Your task to perform on an android device: check data usage Image 0: 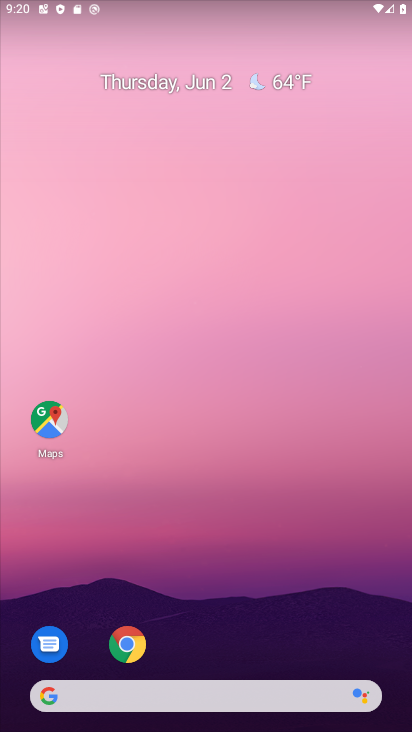
Step 0: press home button
Your task to perform on an android device: check data usage Image 1: 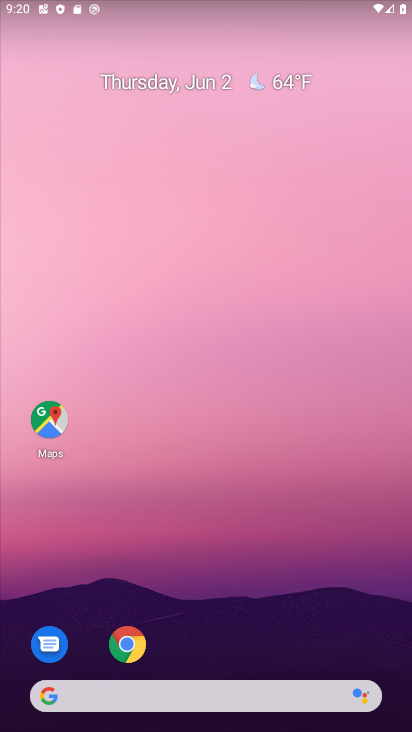
Step 1: drag from (295, 636) to (314, 229)
Your task to perform on an android device: check data usage Image 2: 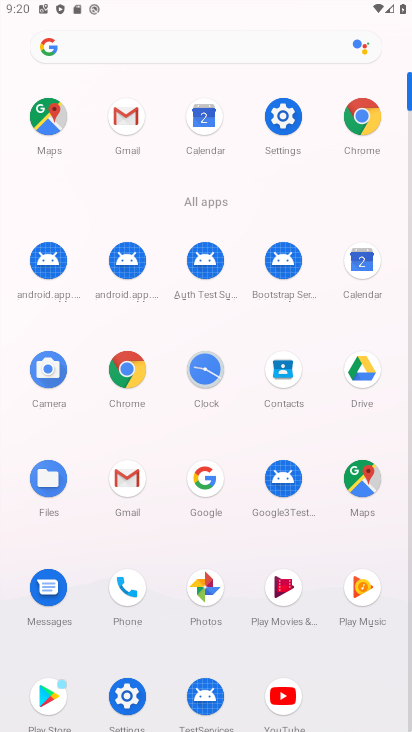
Step 2: drag from (377, 3) to (297, 710)
Your task to perform on an android device: check data usage Image 3: 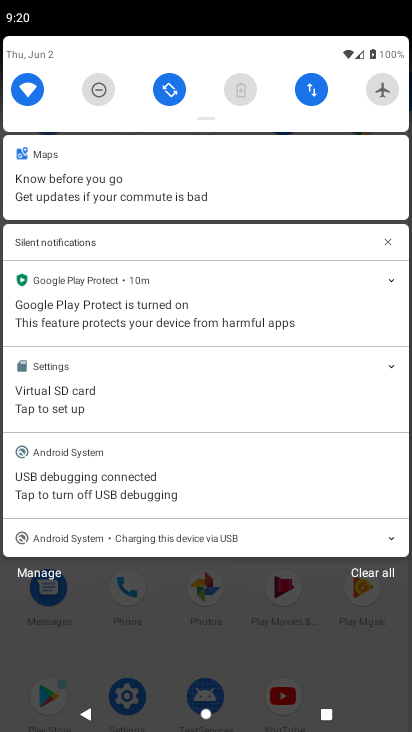
Step 3: click (315, 84)
Your task to perform on an android device: check data usage Image 4: 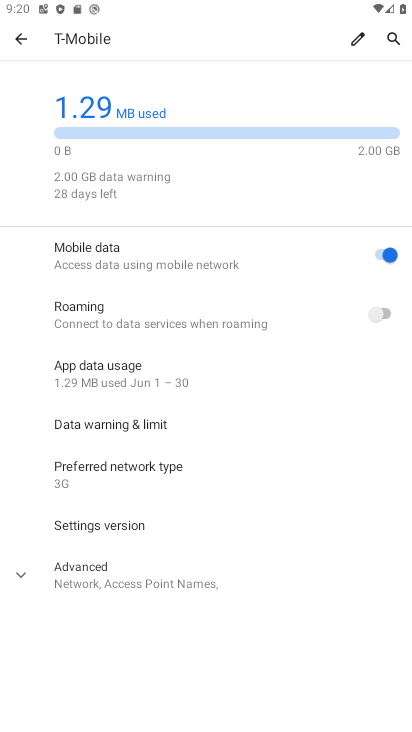
Step 4: task complete